Your task to perform on an android device: turn on notifications settings in the gmail app Image 0: 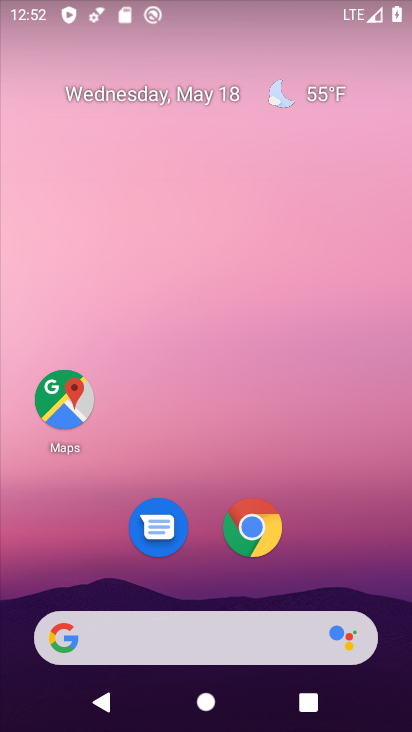
Step 0: drag from (335, 536) to (236, 51)
Your task to perform on an android device: turn on notifications settings in the gmail app Image 1: 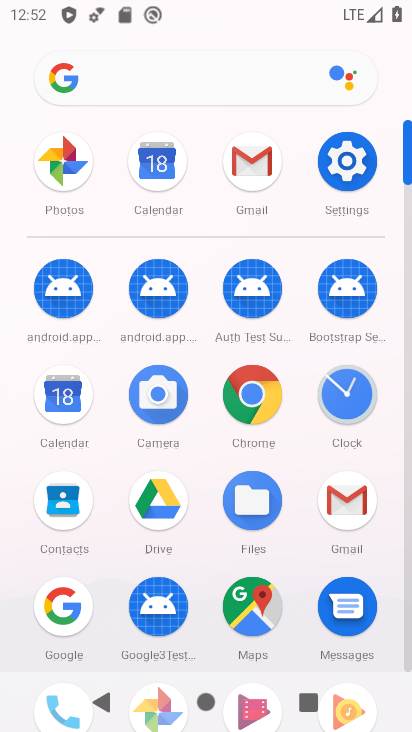
Step 1: click (251, 176)
Your task to perform on an android device: turn on notifications settings in the gmail app Image 2: 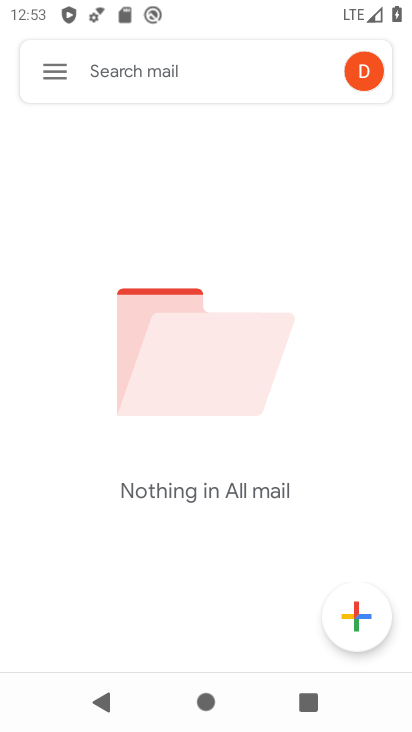
Step 2: click (46, 70)
Your task to perform on an android device: turn on notifications settings in the gmail app Image 3: 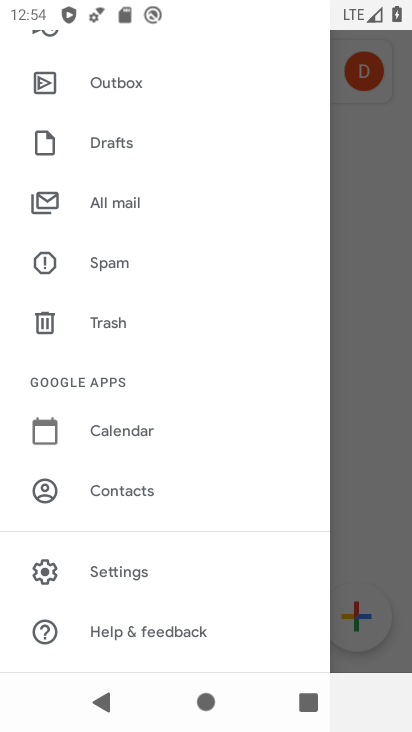
Step 3: click (138, 568)
Your task to perform on an android device: turn on notifications settings in the gmail app Image 4: 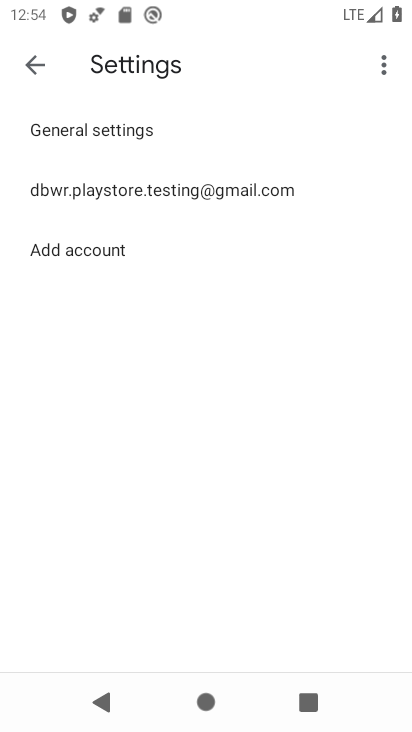
Step 4: click (121, 196)
Your task to perform on an android device: turn on notifications settings in the gmail app Image 5: 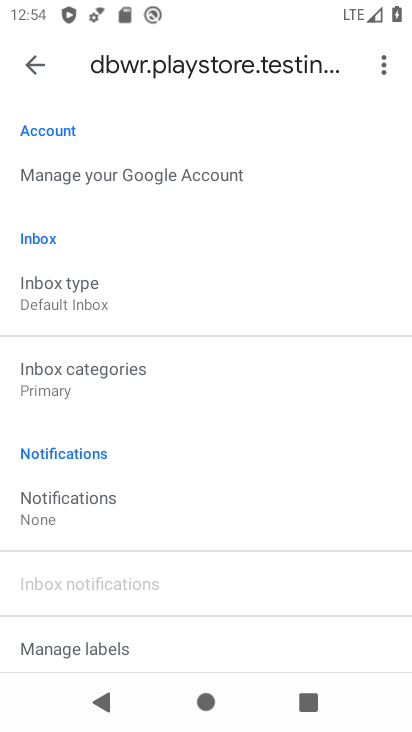
Step 5: click (120, 519)
Your task to perform on an android device: turn on notifications settings in the gmail app Image 6: 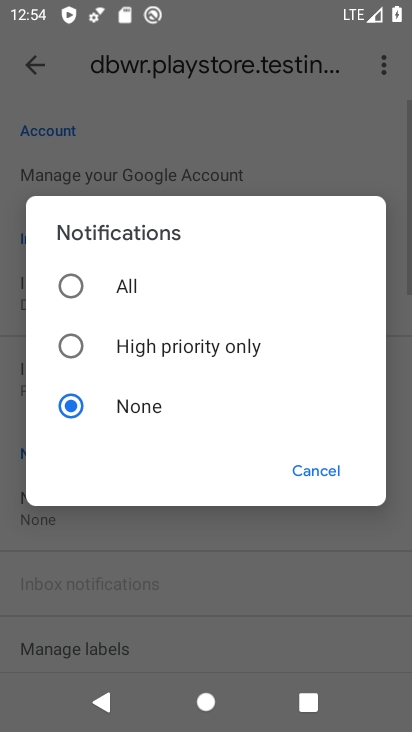
Step 6: click (109, 280)
Your task to perform on an android device: turn on notifications settings in the gmail app Image 7: 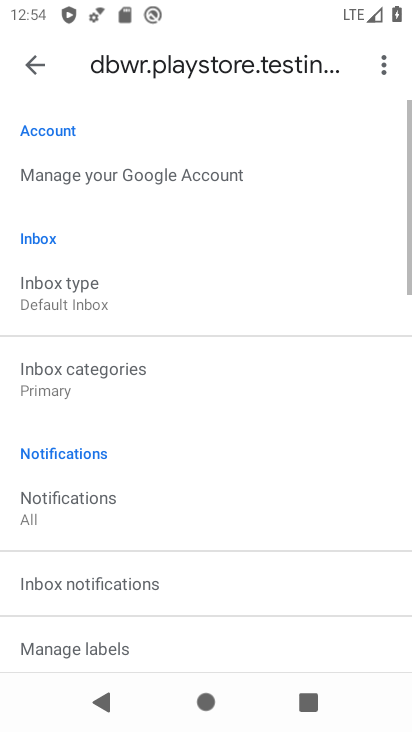
Step 7: task complete